Your task to perform on an android device: Open eBay Image 0: 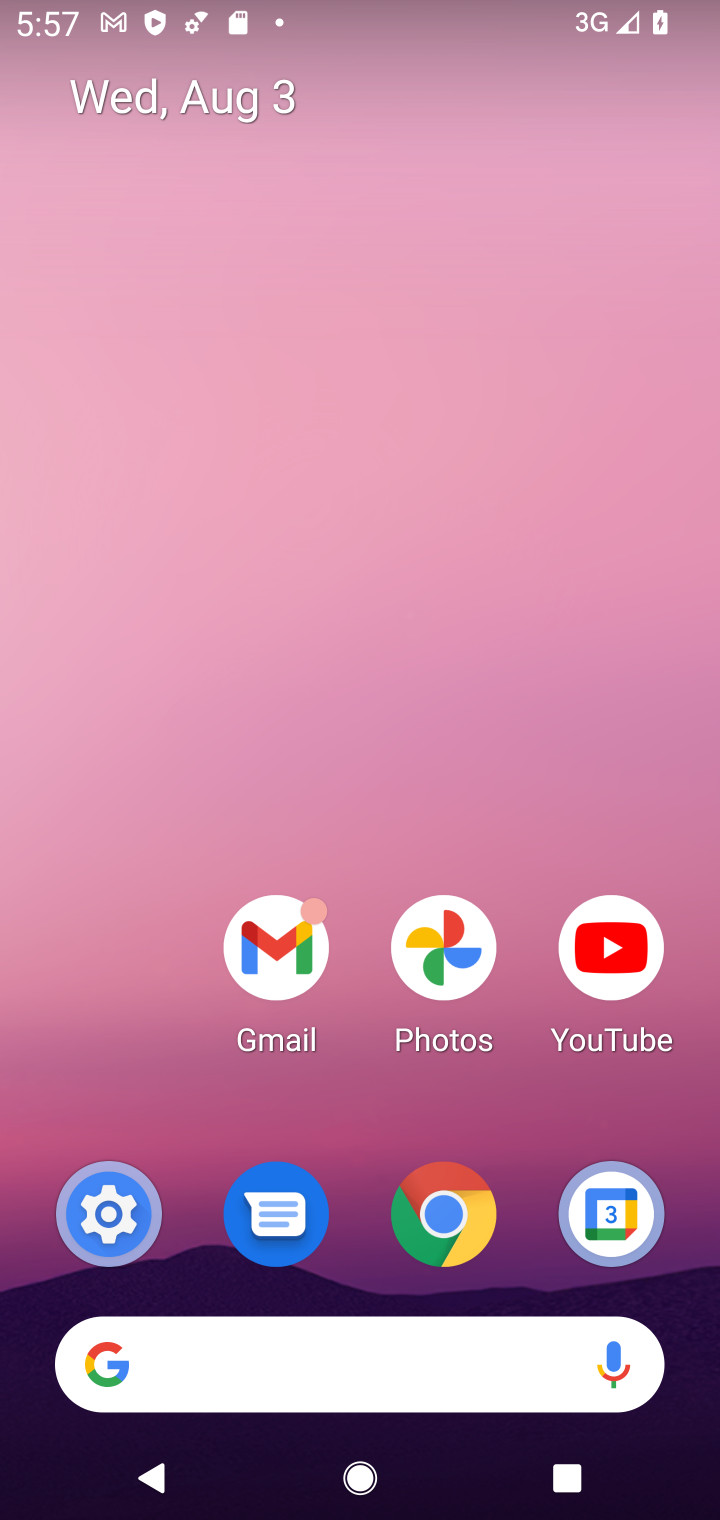
Step 0: click (427, 1211)
Your task to perform on an android device: Open eBay Image 1: 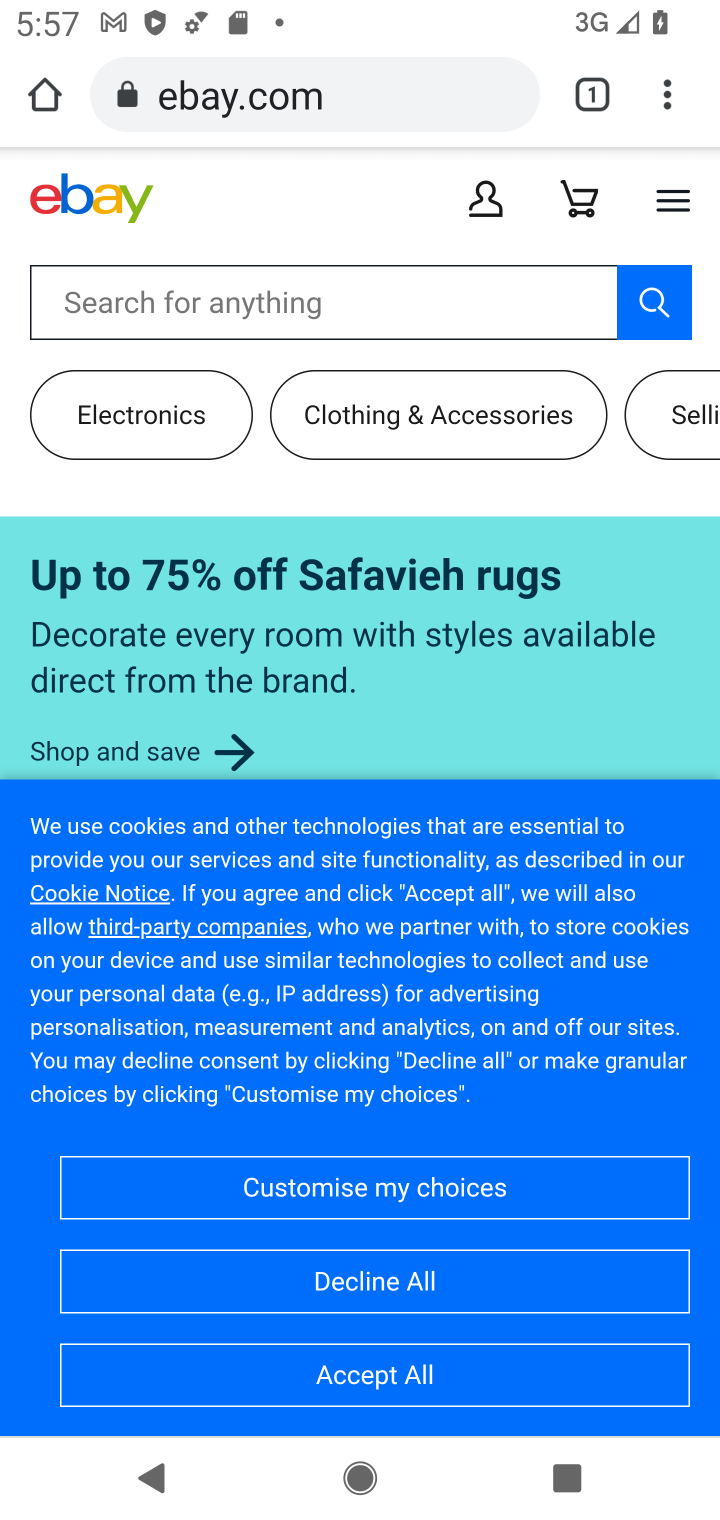
Step 1: task complete